Your task to perform on an android device: Open Google Maps Image 0: 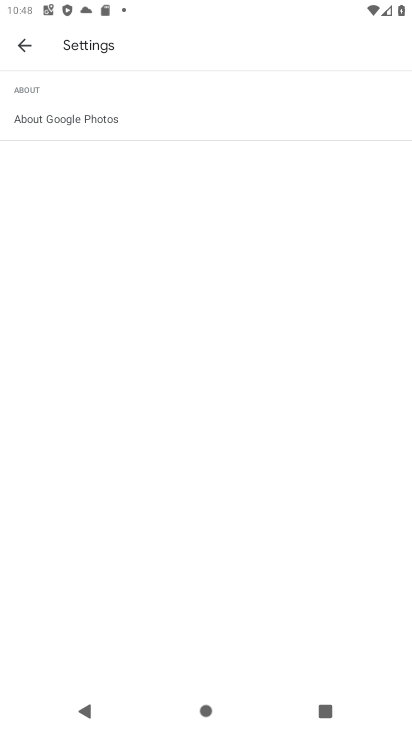
Step 0: press home button
Your task to perform on an android device: Open Google Maps Image 1: 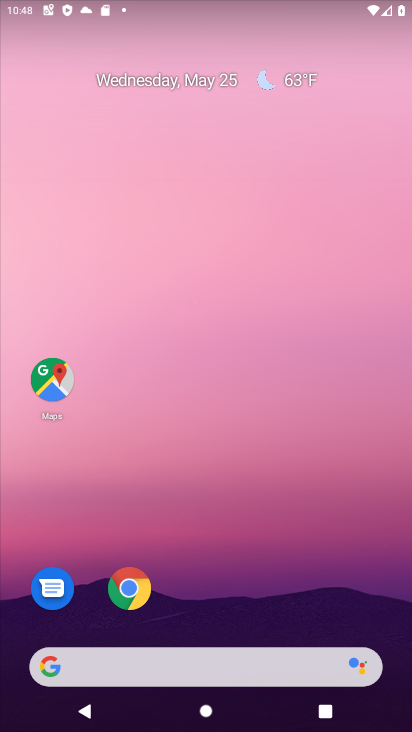
Step 1: click (66, 379)
Your task to perform on an android device: Open Google Maps Image 2: 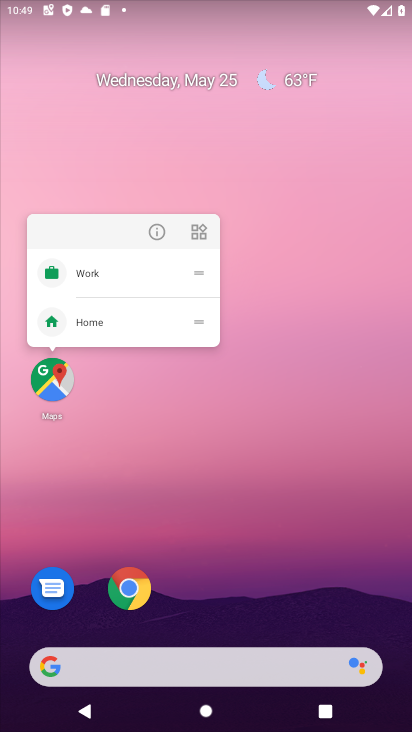
Step 2: click (64, 374)
Your task to perform on an android device: Open Google Maps Image 3: 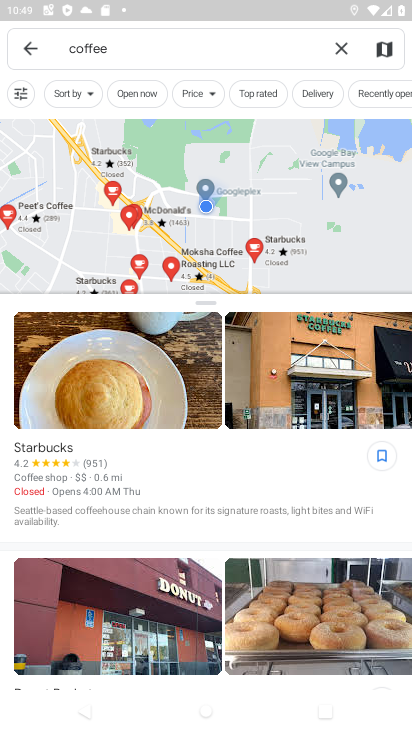
Step 3: task complete